Your task to perform on an android device: Open Chrome and go to settings Image 0: 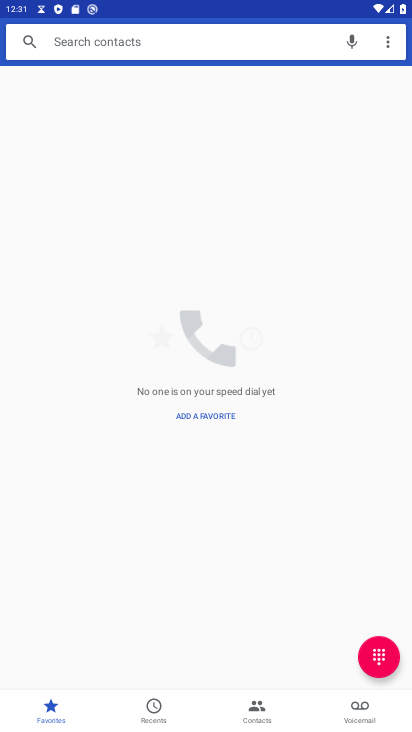
Step 0: press home button
Your task to perform on an android device: Open Chrome and go to settings Image 1: 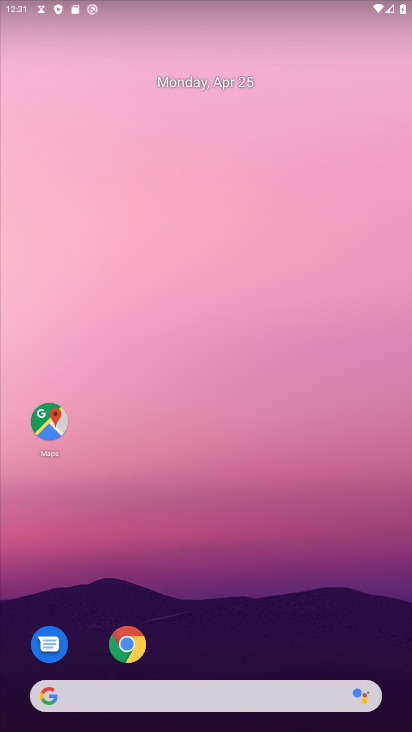
Step 1: click (133, 652)
Your task to perform on an android device: Open Chrome and go to settings Image 2: 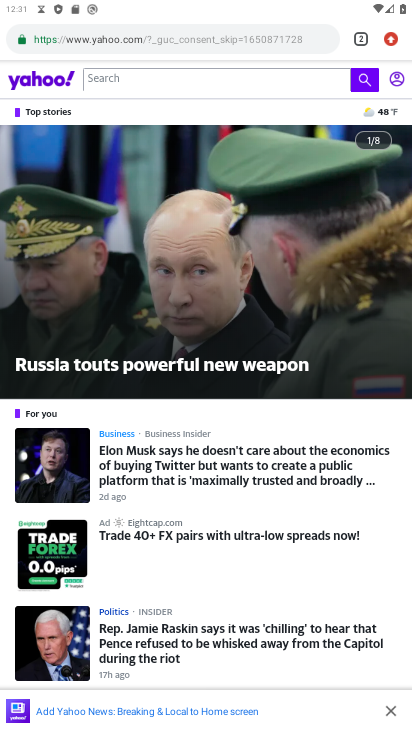
Step 2: task complete